Your task to perform on an android device: Open settings Image 0: 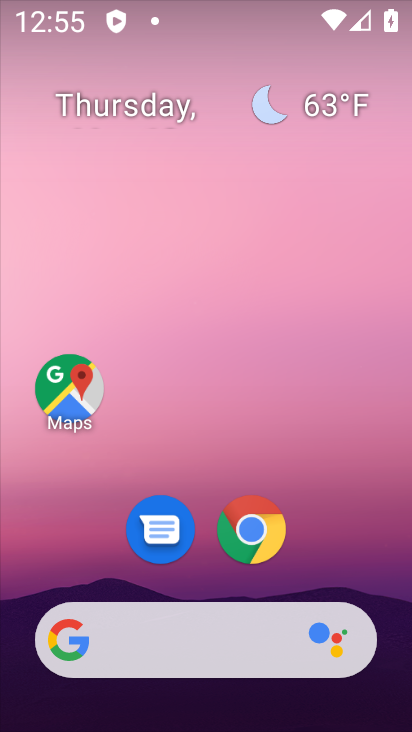
Step 0: drag from (341, 571) to (205, 104)
Your task to perform on an android device: Open settings Image 1: 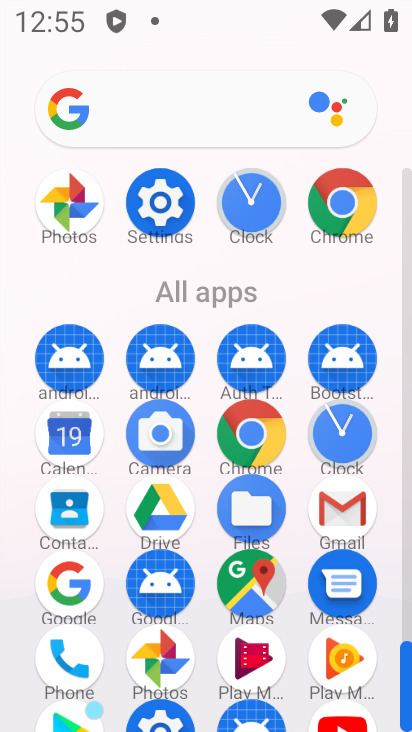
Step 1: click (162, 204)
Your task to perform on an android device: Open settings Image 2: 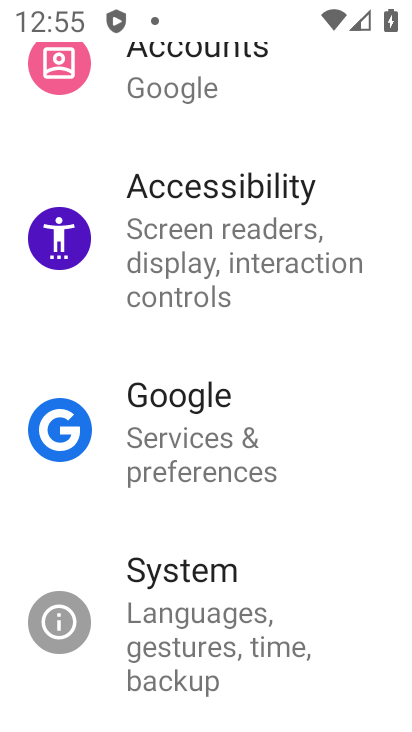
Step 2: task complete